Your task to perform on an android device: open sync settings in chrome Image 0: 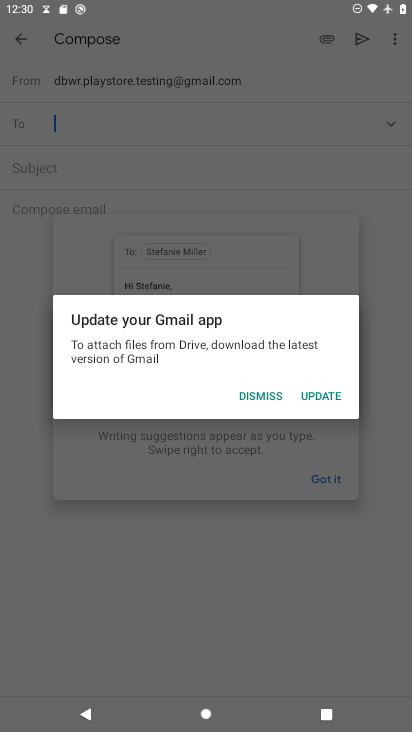
Step 0: press home button
Your task to perform on an android device: open sync settings in chrome Image 1: 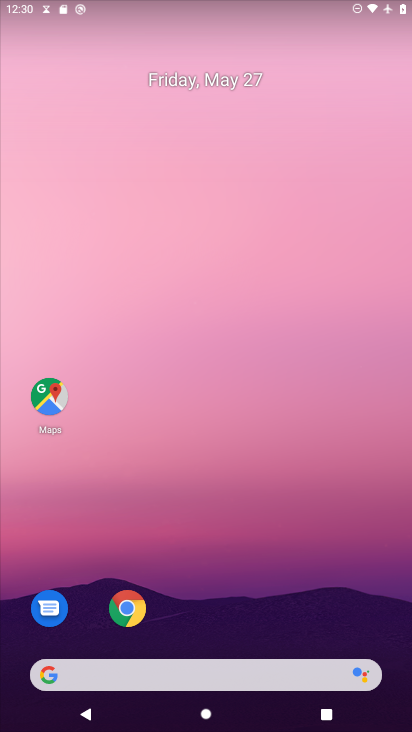
Step 1: click (130, 615)
Your task to perform on an android device: open sync settings in chrome Image 2: 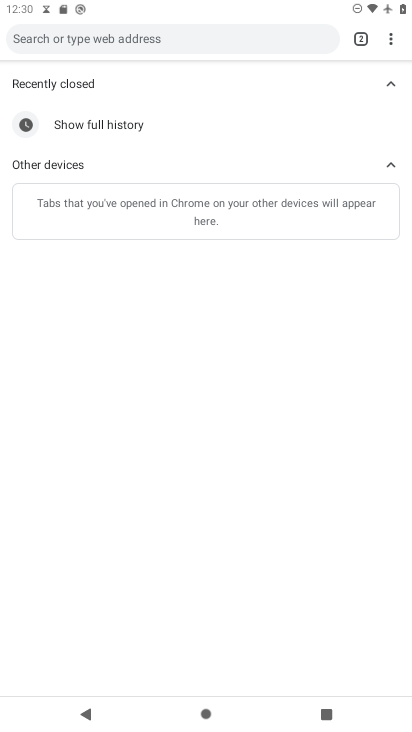
Step 2: drag from (391, 37) to (257, 330)
Your task to perform on an android device: open sync settings in chrome Image 3: 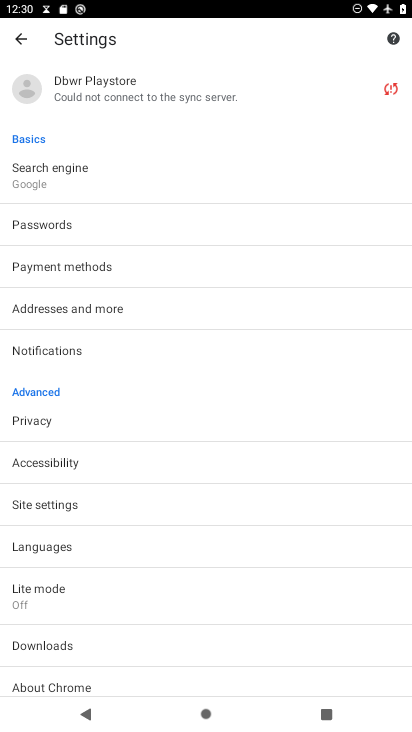
Step 3: click (166, 87)
Your task to perform on an android device: open sync settings in chrome Image 4: 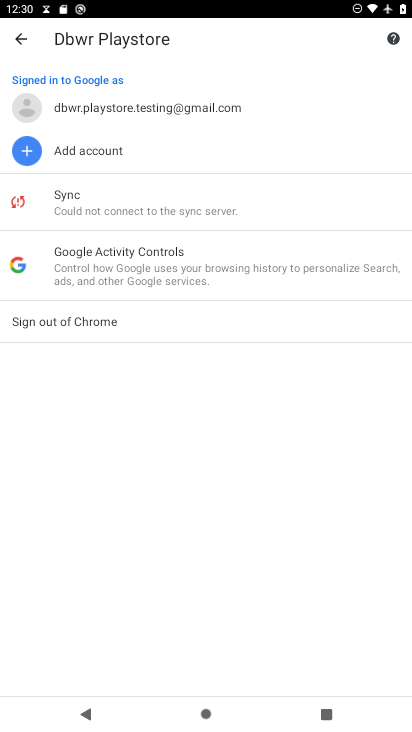
Step 4: click (117, 197)
Your task to perform on an android device: open sync settings in chrome Image 5: 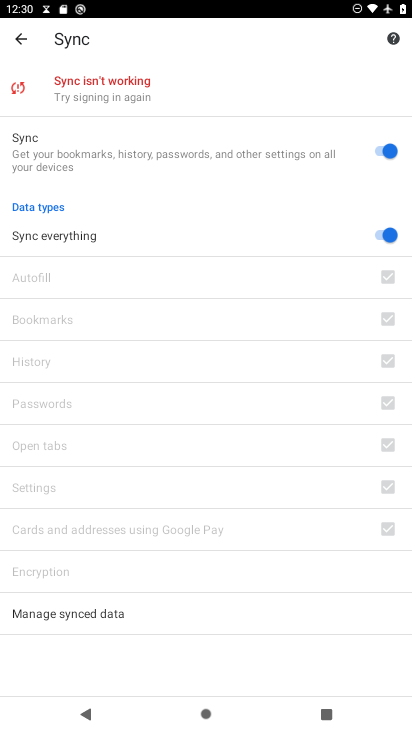
Step 5: task complete